Your task to perform on an android device: What's on my calendar tomorrow? Image 0: 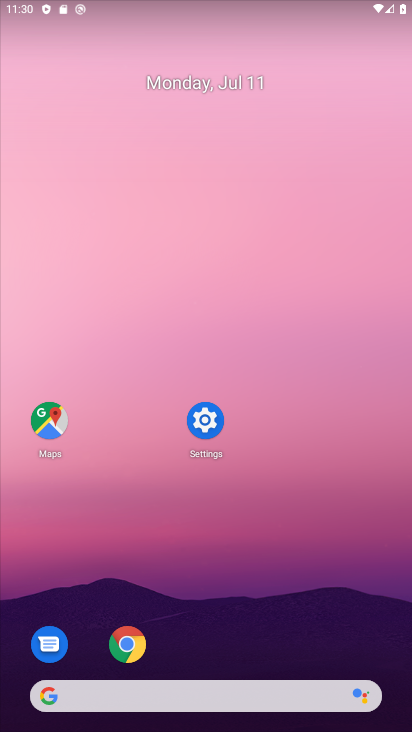
Step 0: drag from (385, 580) to (345, 141)
Your task to perform on an android device: What's on my calendar tomorrow? Image 1: 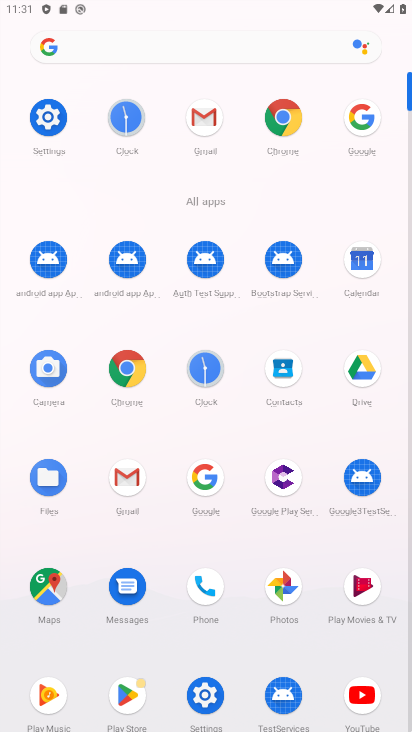
Step 1: click (358, 260)
Your task to perform on an android device: What's on my calendar tomorrow? Image 2: 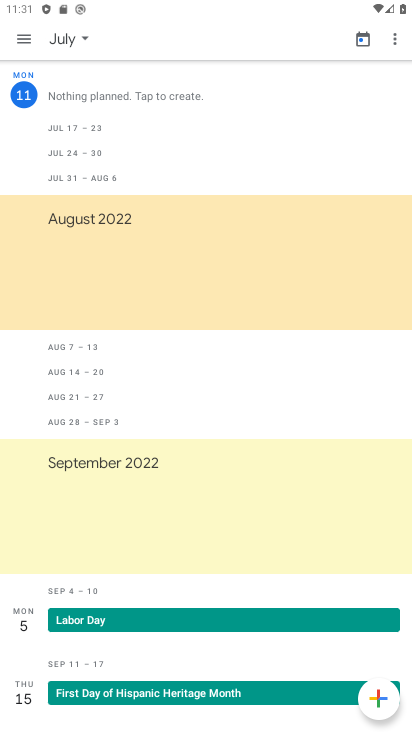
Step 2: click (88, 30)
Your task to perform on an android device: What's on my calendar tomorrow? Image 3: 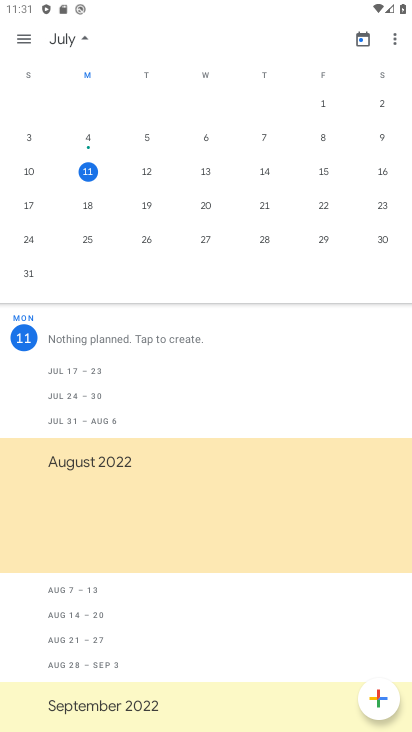
Step 3: click (145, 163)
Your task to perform on an android device: What's on my calendar tomorrow? Image 4: 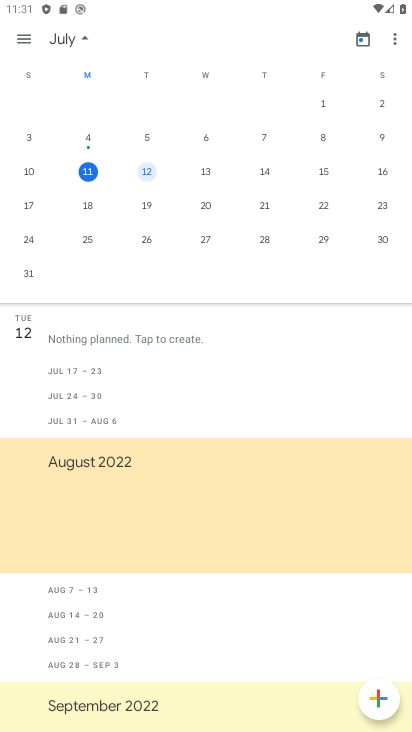
Step 4: task complete